Your task to perform on an android device: turn on javascript in the chrome app Image 0: 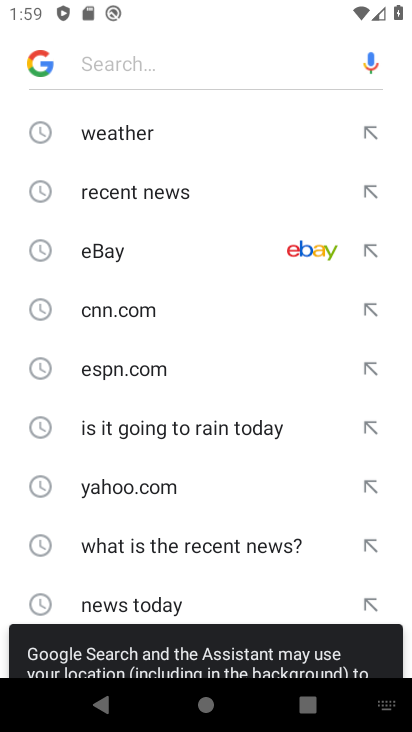
Step 0: press home button
Your task to perform on an android device: turn on javascript in the chrome app Image 1: 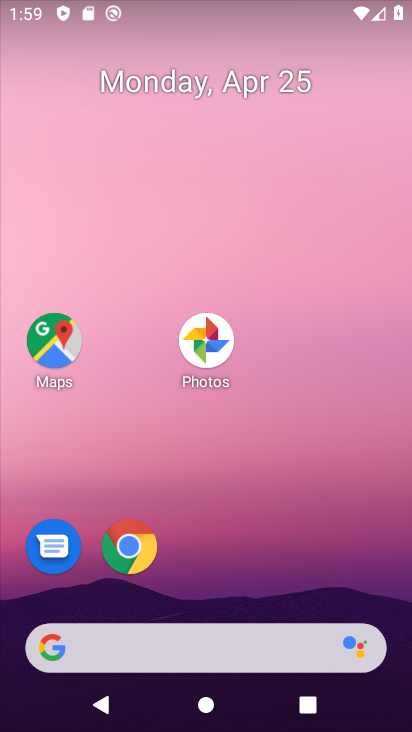
Step 1: drag from (223, 592) to (240, 237)
Your task to perform on an android device: turn on javascript in the chrome app Image 2: 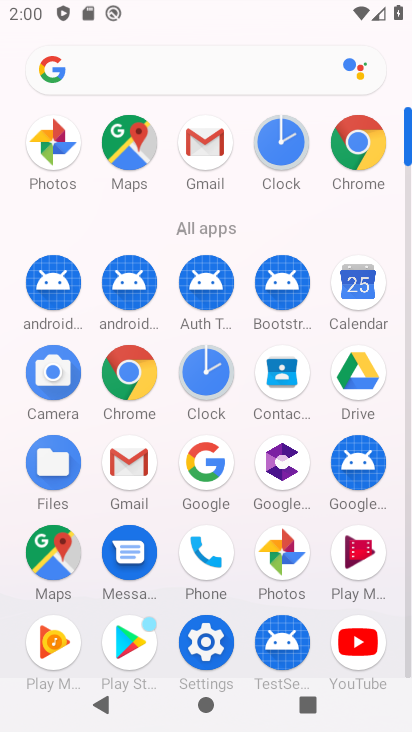
Step 2: click (132, 379)
Your task to perform on an android device: turn on javascript in the chrome app Image 3: 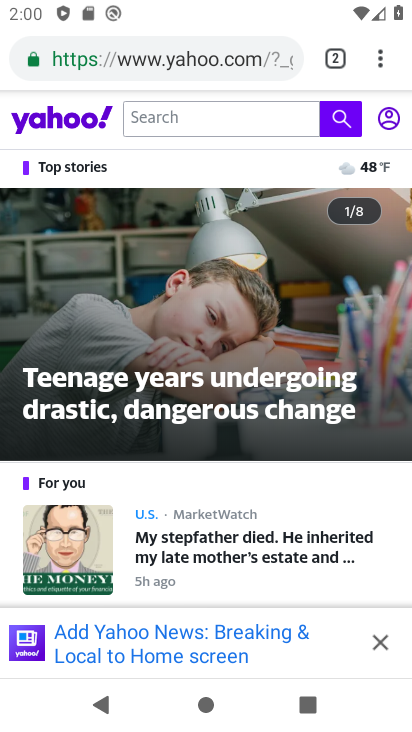
Step 3: click (368, 55)
Your task to perform on an android device: turn on javascript in the chrome app Image 4: 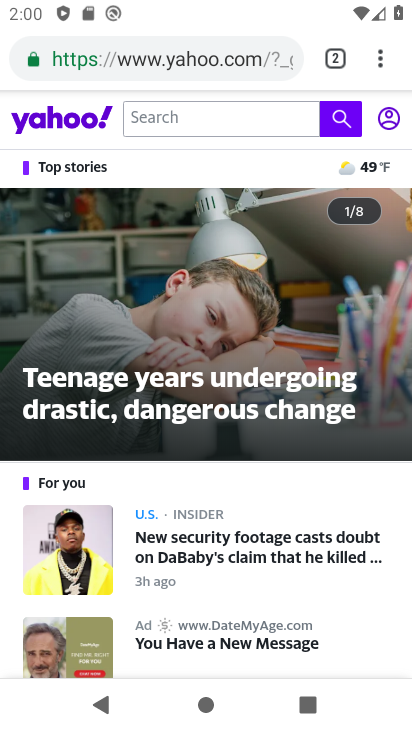
Step 4: click (377, 56)
Your task to perform on an android device: turn on javascript in the chrome app Image 5: 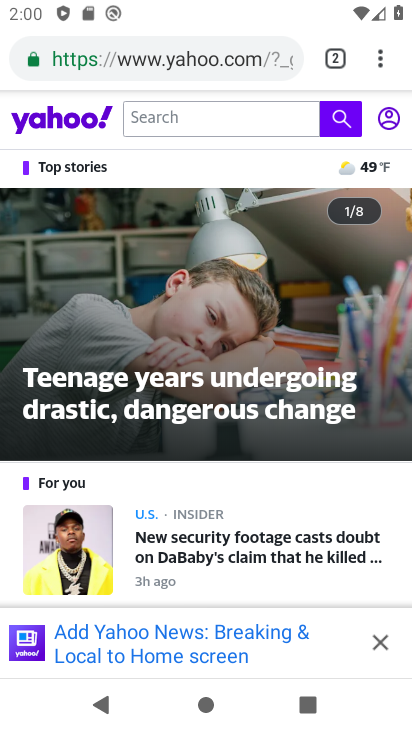
Step 5: click (376, 56)
Your task to perform on an android device: turn on javascript in the chrome app Image 6: 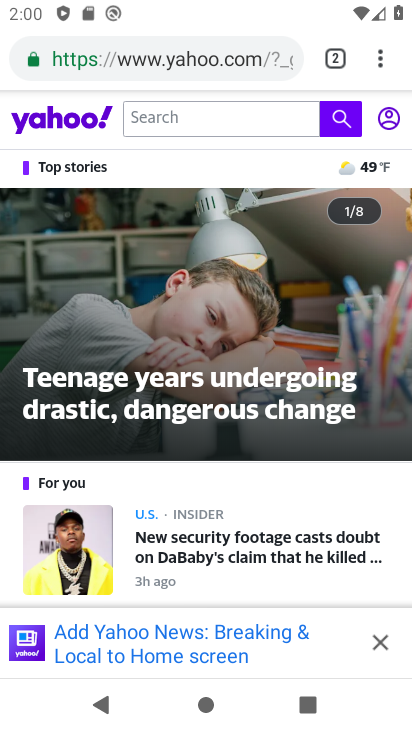
Step 6: click (366, 55)
Your task to perform on an android device: turn on javascript in the chrome app Image 7: 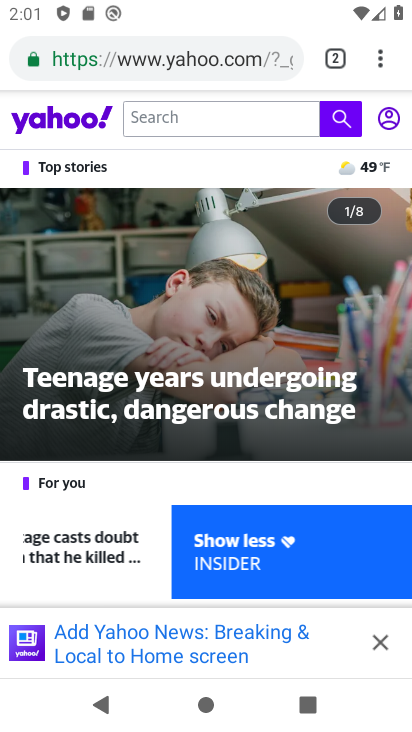
Step 7: click (361, 57)
Your task to perform on an android device: turn on javascript in the chrome app Image 8: 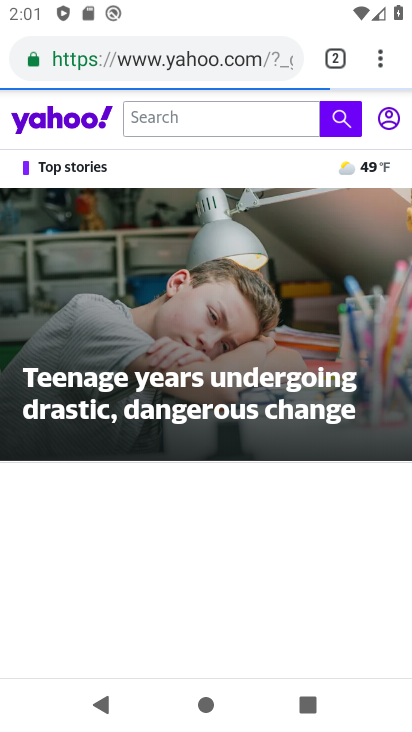
Step 8: click (361, 57)
Your task to perform on an android device: turn on javascript in the chrome app Image 9: 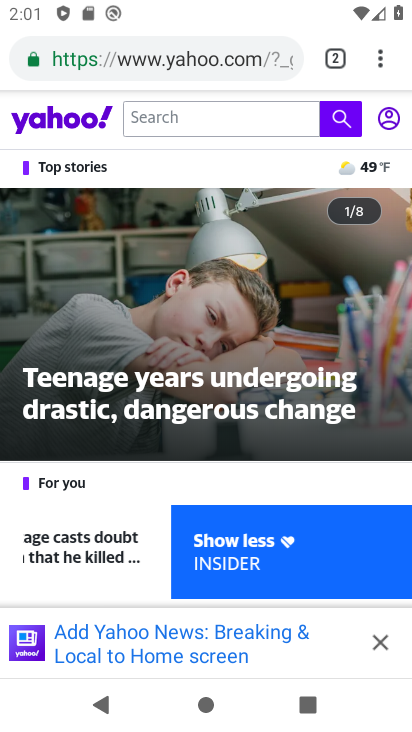
Step 9: click (355, 65)
Your task to perform on an android device: turn on javascript in the chrome app Image 10: 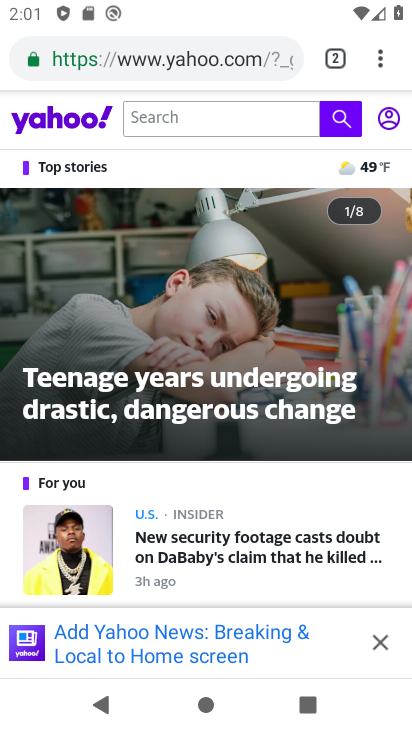
Step 10: click (371, 58)
Your task to perform on an android device: turn on javascript in the chrome app Image 11: 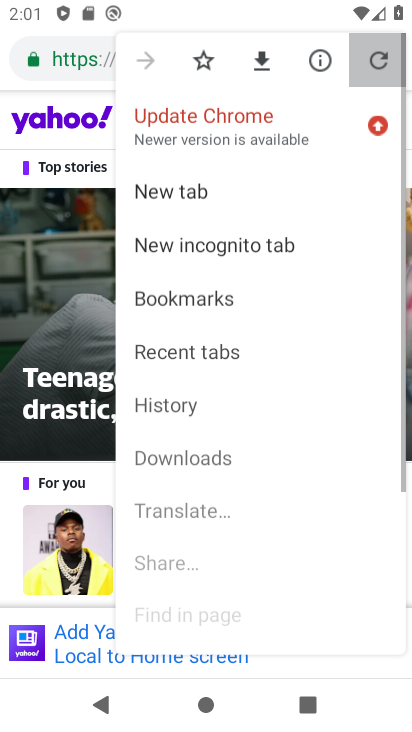
Step 11: click (371, 58)
Your task to perform on an android device: turn on javascript in the chrome app Image 12: 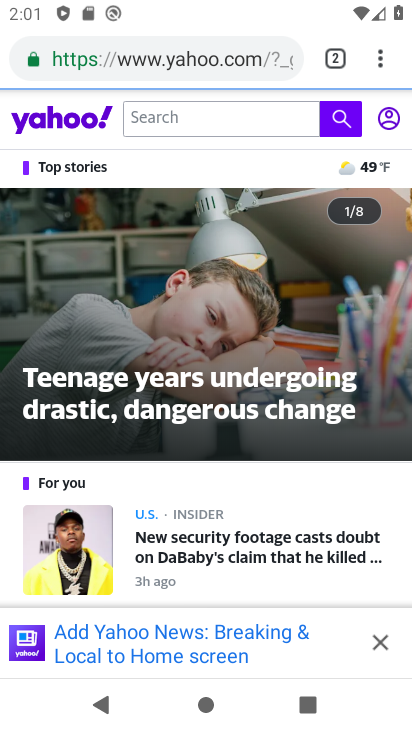
Step 12: click (371, 58)
Your task to perform on an android device: turn on javascript in the chrome app Image 13: 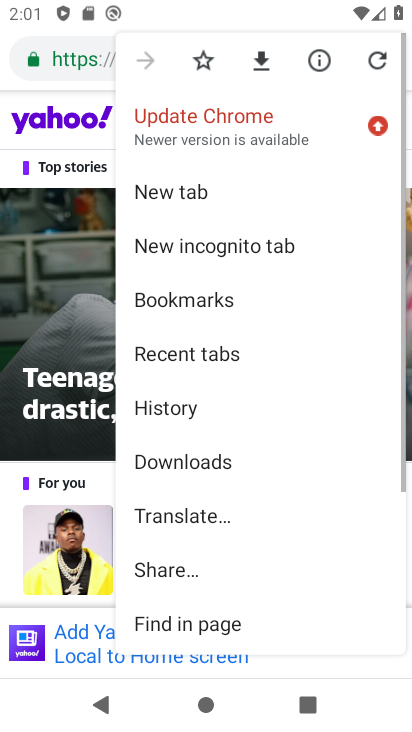
Step 13: click (371, 58)
Your task to perform on an android device: turn on javascript in the chrome app Image 14: 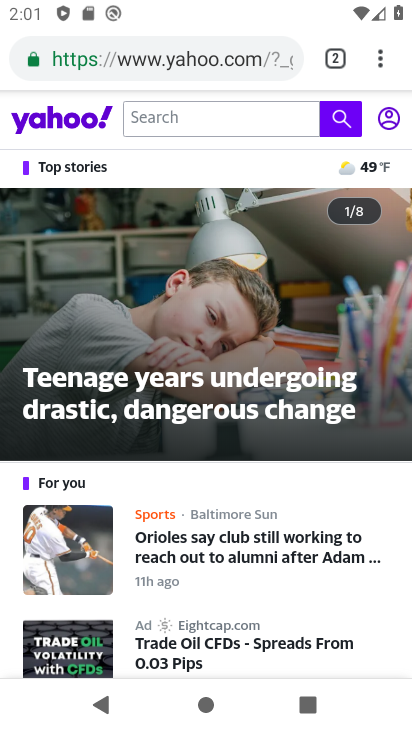
Step 14: click (375, 58)
Your task to perform on an android device: turn on javascript in the chrome app Image 15: 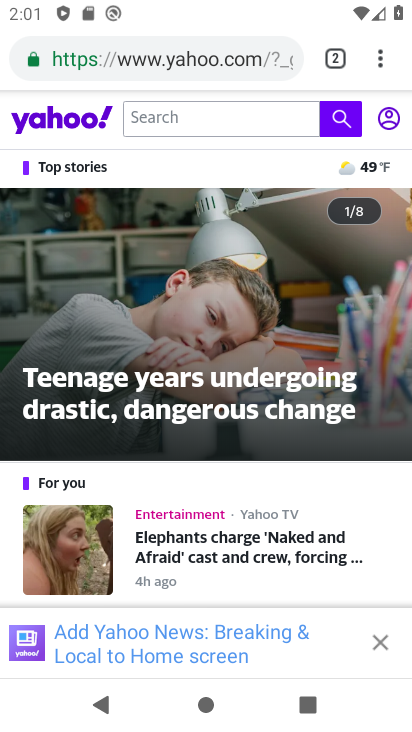
Step 15: click (375, 58)
Your task to perform on an android device: turn on javascript in the chrome app Image 16: 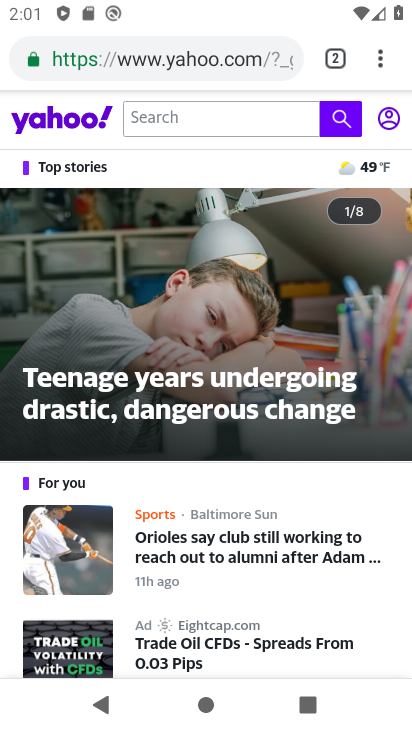
Step 16: click (375, 58)
Your task to perform on an android device: turn on javascript in the chrome app Image 17: 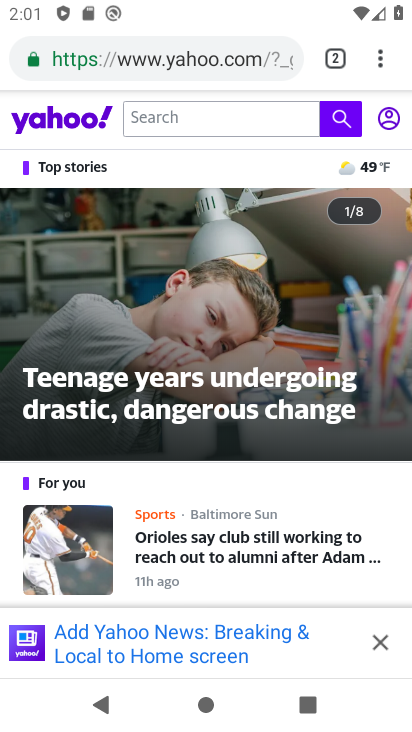
Step 17: click (373, 57)
Your task to perform on an android device: turn on javascript in the chrome app Image 18: 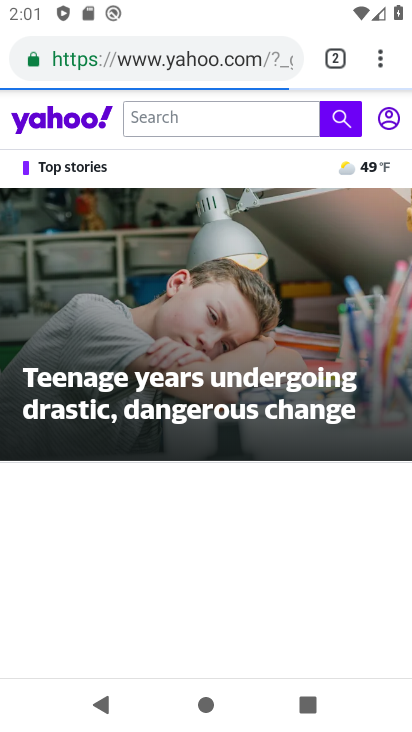
Step 18: click (363, 62)
Your task to perform on an android device: turn on javascript in the chrome app Image 19: 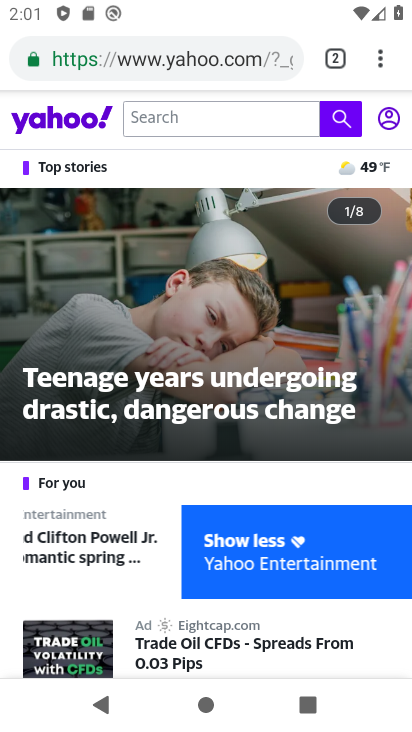
Step 19: click (363, 54)
Your task to perform on an android device: turn on javascript in the chrome app Image 20: 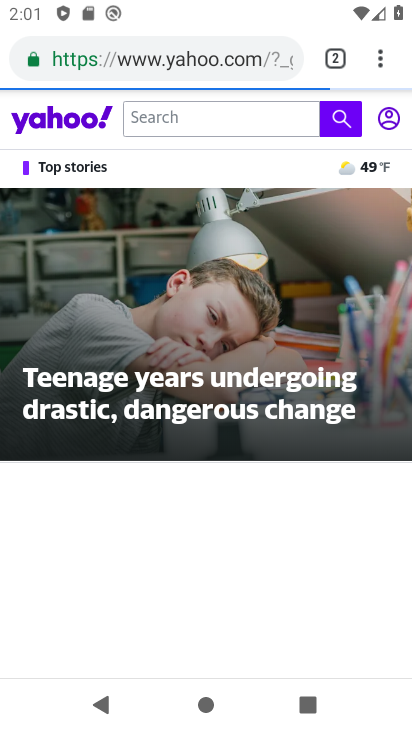
Step 20: click (363, 54)
Your task to perform on an android device: turn on javascript in the chrome app Image 21: 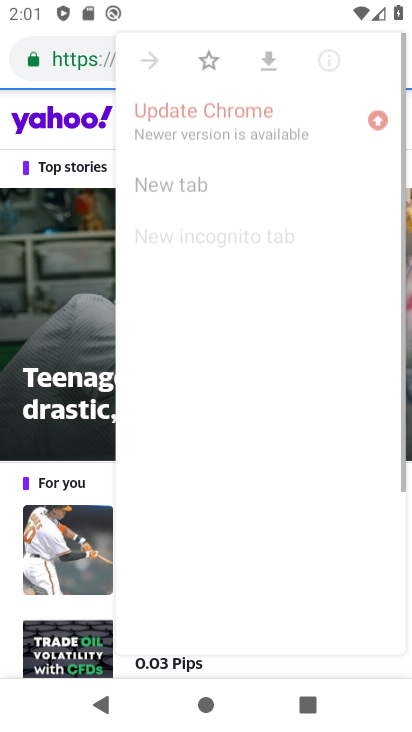
Step 21: click (363, 54)
Your task to perform on an android device: turn on javascript in the chrome app Image 22: 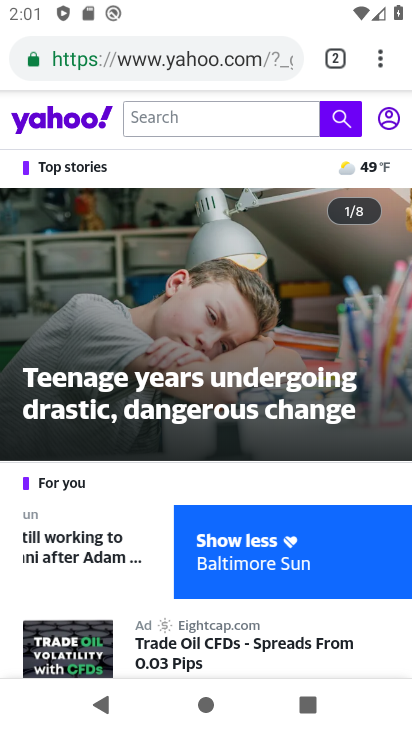
Step 22: click (373, 63)
Your task to perform on an android device: turn on javascript in the chrome app Image 23: 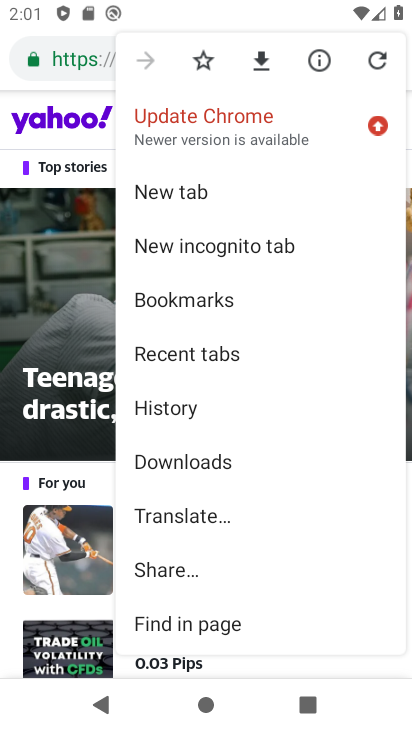
Step 23: drag from (268, 568) to (312, 244)
Your task to perform on an android device: turn on javascript in the chrome app Image 24: 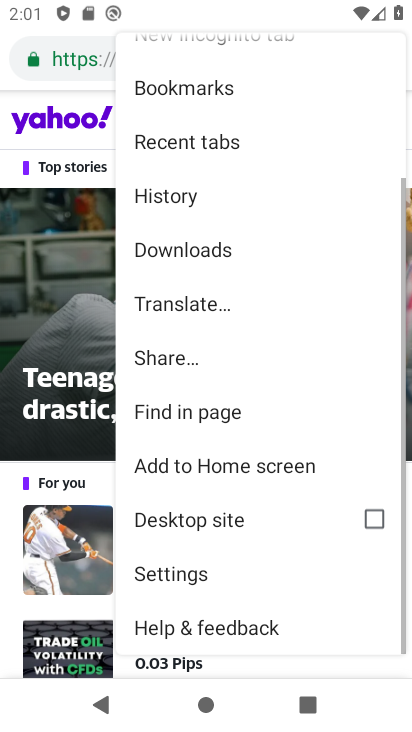
Step 24: click (231, 575)
Your task to perform on an android device: turn on javascript in the chrome app Image 25: 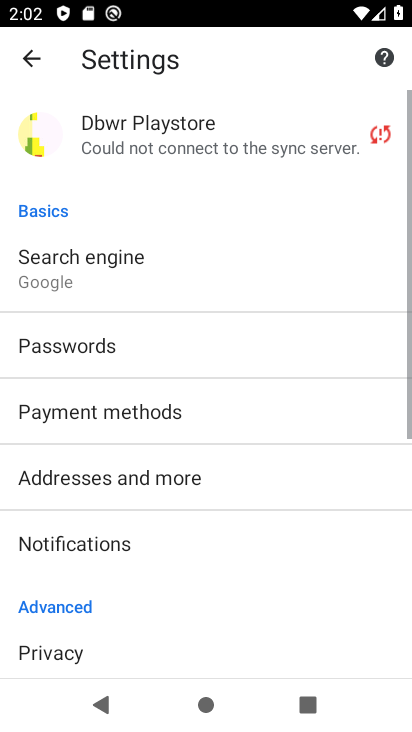
Step 25: drag from (216, 627) to (239, 217)
Your task to perform on an android device: turn on javascript in the chrome app Image 26: 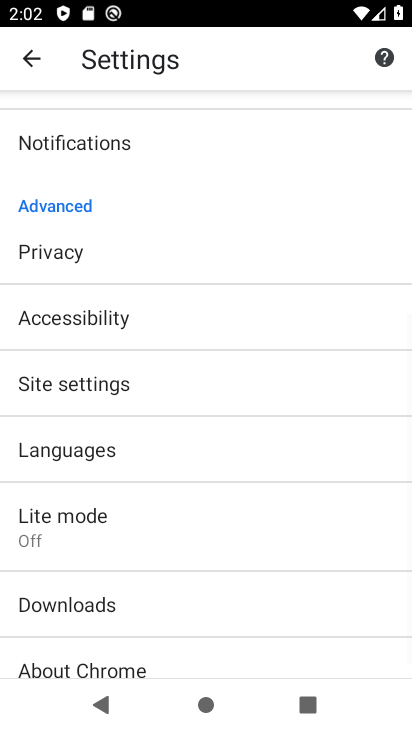
Step 26: drag from (124, 621) to (217, 258)
Your task to perform on an android device: turn on javascript in the chrome app Image 27: 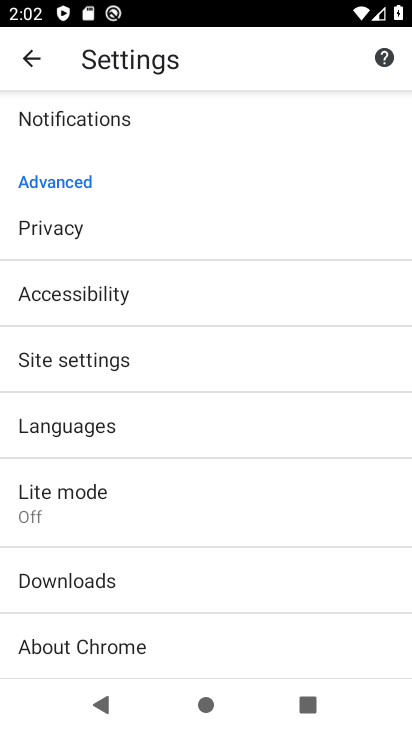
Step 27: drag from (130, 639) to (182, 373)
Your task to perform on an android device: turn on javascript in the chrome app Image 28: 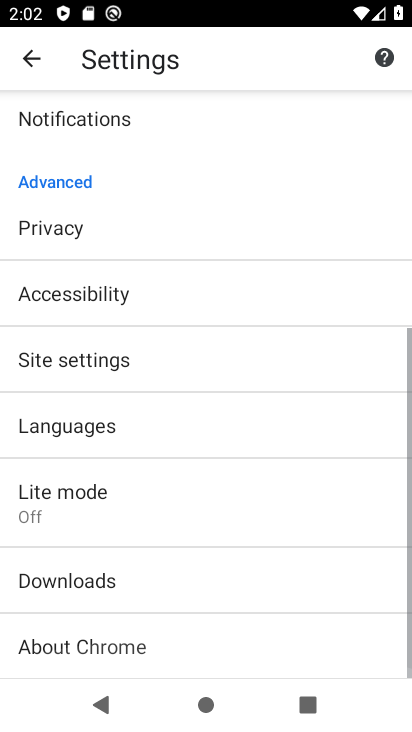
Step 28: click (182, 365)
Your task to perform on an android device: turn on javascript in the chrome app Image 29: 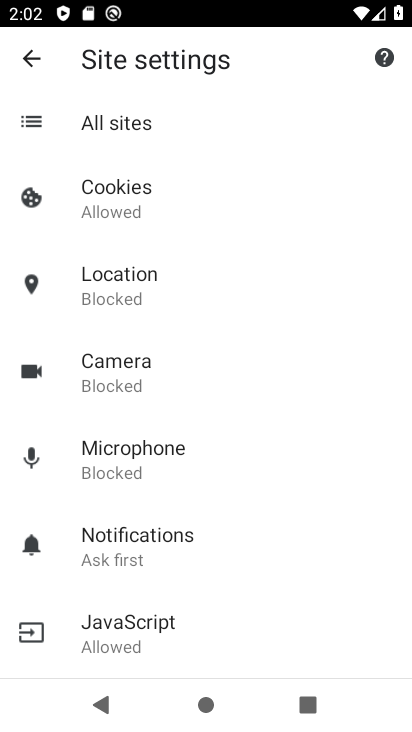
Step 29: click (158, 649)
Your task to perform on an android device: turn on javascript in the chrome app Image 30: 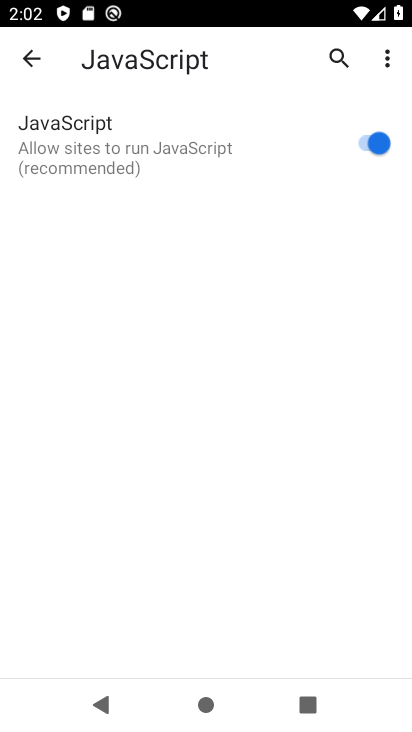
Step 30: task complete